Your task to perform on an android device: turn off notifications in google photos Image 0: 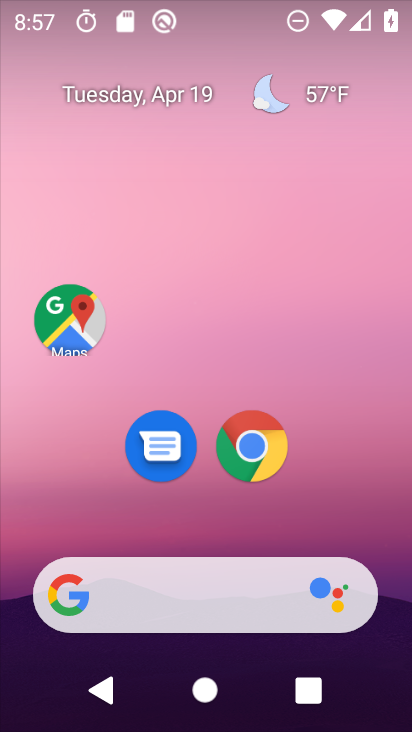
Step 0: press home button
Your task to perform on an android device: turn off notifications in google photos Image 1: 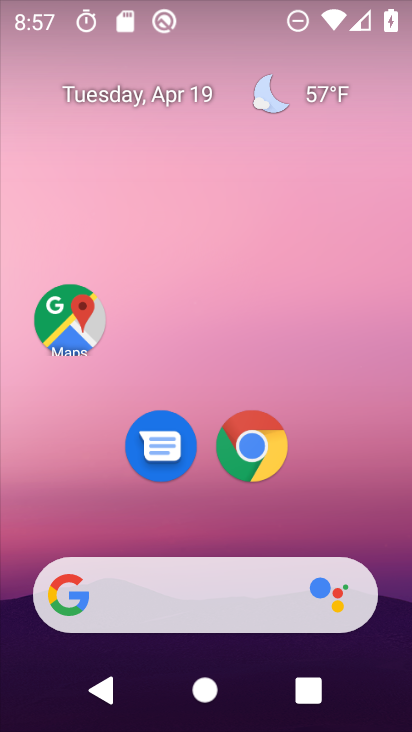
Step 1: drag from (352, 497) to (302, 143)
Your task to perform on an android device: turn off notifications in google photos Image 2: 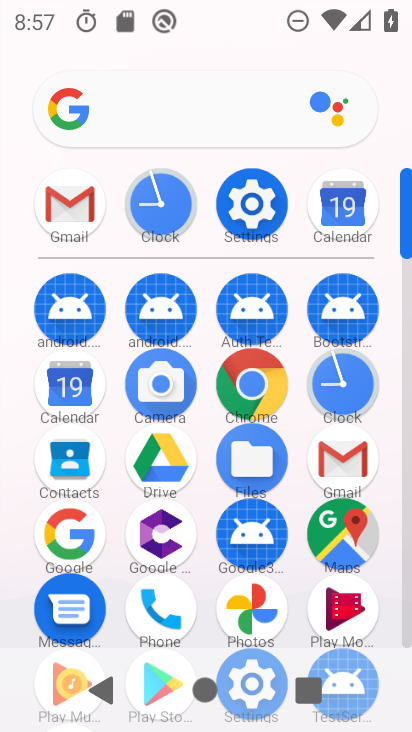
Step 2: click (251, 596)
Your task to perform on an android device: turn off notifications in google photos Image 3: 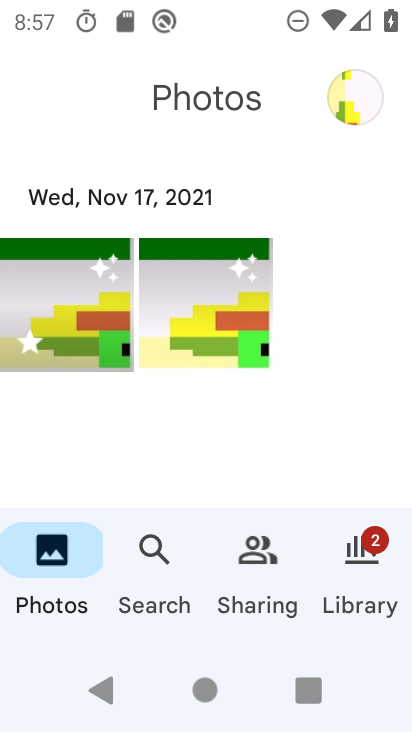
Step 3: click (353, 113)
Your task to perform on an android device: turn off notifications in google photos Image 4: 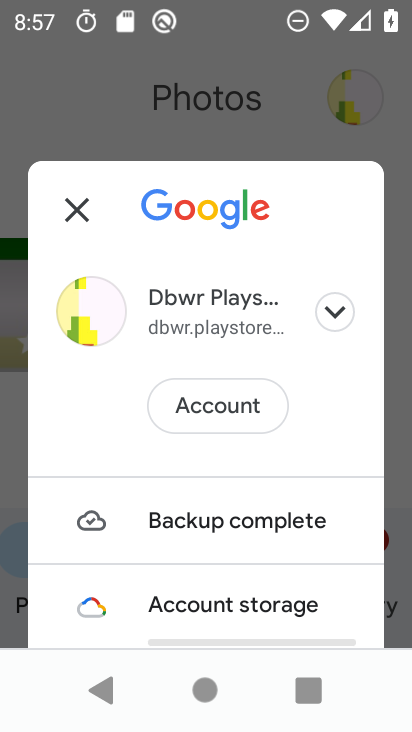
Step 4: drag from (246, 537) to (253, 335)
Your task to perform on an android device: turn off notifications in google photos Image 5: 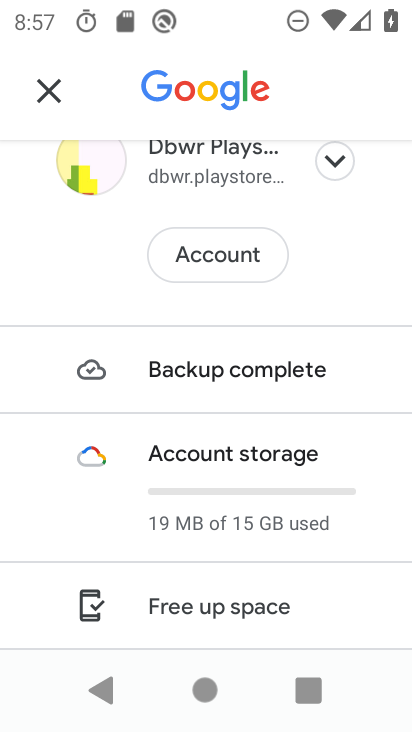
Step 5: click (231, 255)
Your task to perform on an android device: turn off notifications in google photos Image 6: 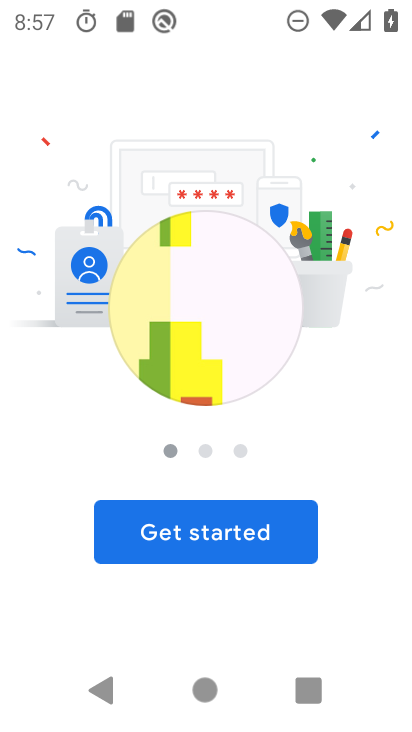
Step 6: press back button
Your task to perform on an android device: turn off notifications in google photos Image 7: 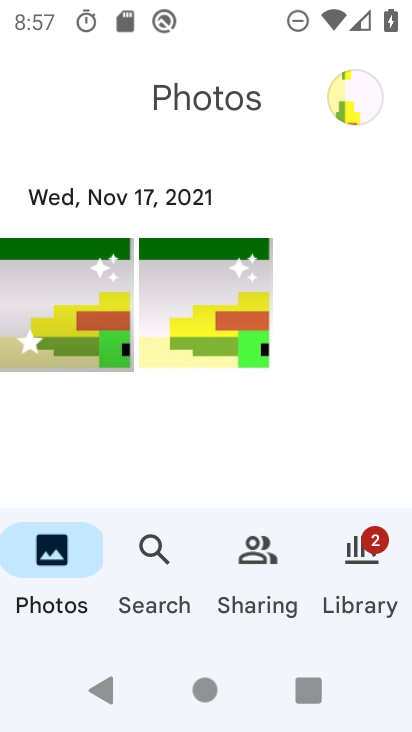
Step 7: click (350, 111)
Your task to perform on an android device: turn off notifications in google photos Image 8: 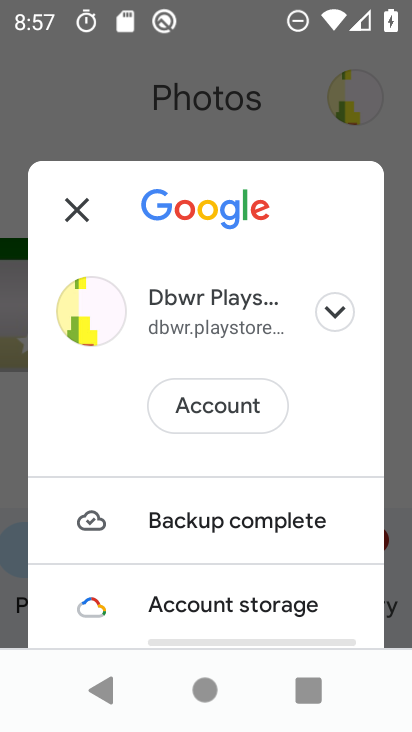
Step 8: drag from (255, 599) to (236, 188)
Your task to perform on an android device: turn off notifications in google photos Image 9: 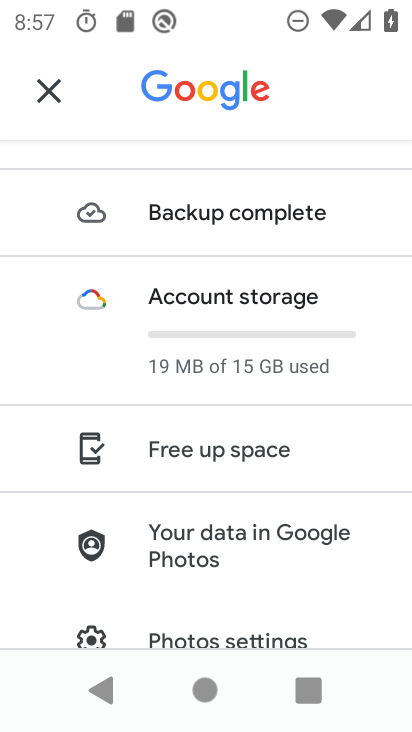
Step 9: drag from (207, 593) to (210, 315)
Your task to perform on an android device: turn off notifications in google photos Image 10: 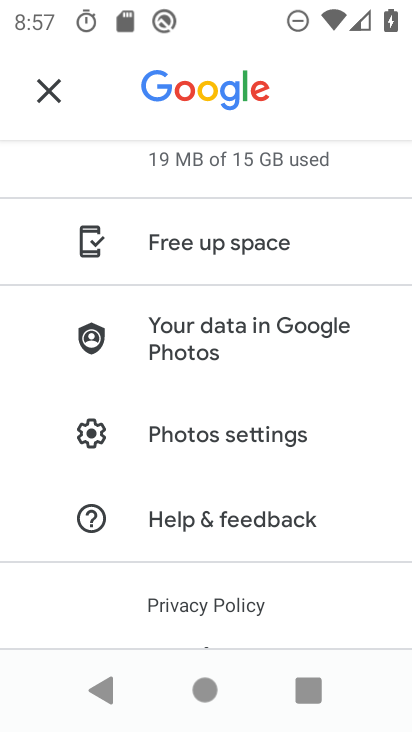
Step 10: click (205, 434)
Your task to perform on an android device: turn off notifications in google photos Image 11: 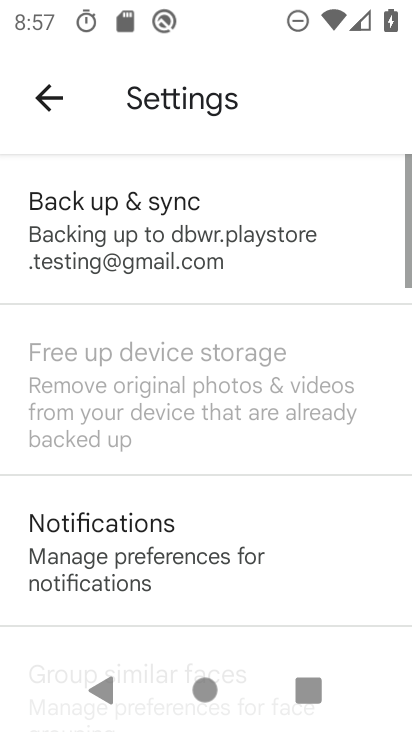
Step 11: click (121, 560)
Your task to perform on an android device: turn off notifications in google photos Image 12: 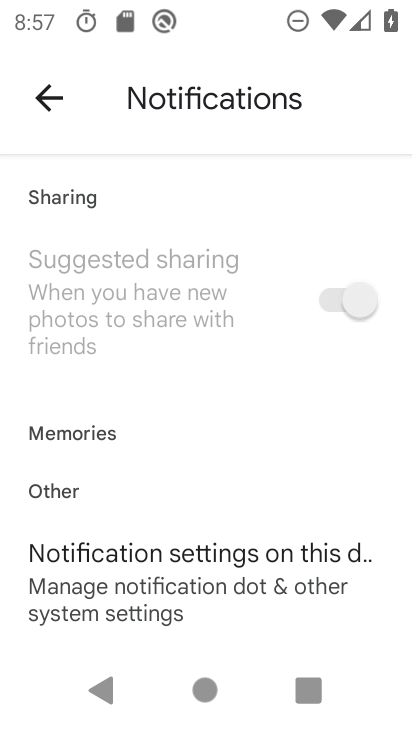
Step 12: drag from (99, 606) to (95, 281)
Your task to perform on an android device: turn off notifications in google photos Image 13: 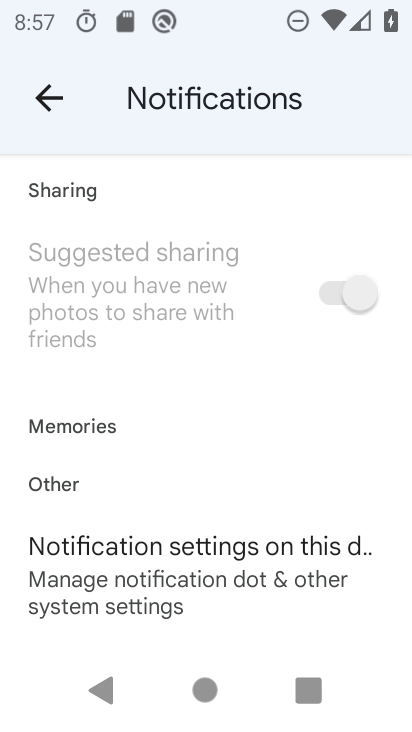
Step 13: click (113, 578)
Your task to perform on an android device: turn off notifications in google photos Image 14: 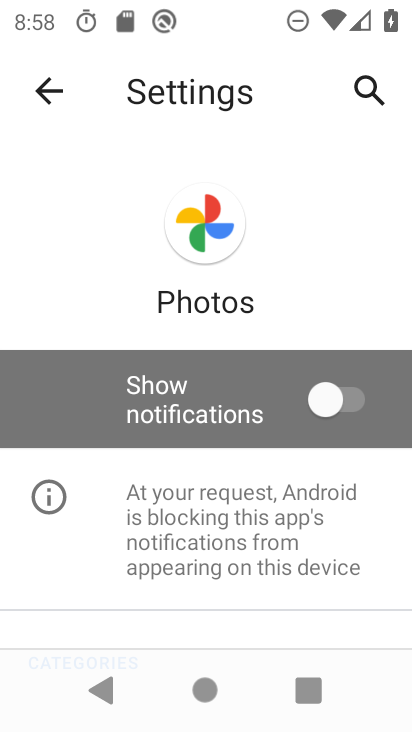
Step 14: task complete